Your task to perform on an android device: check battery use Image 0: 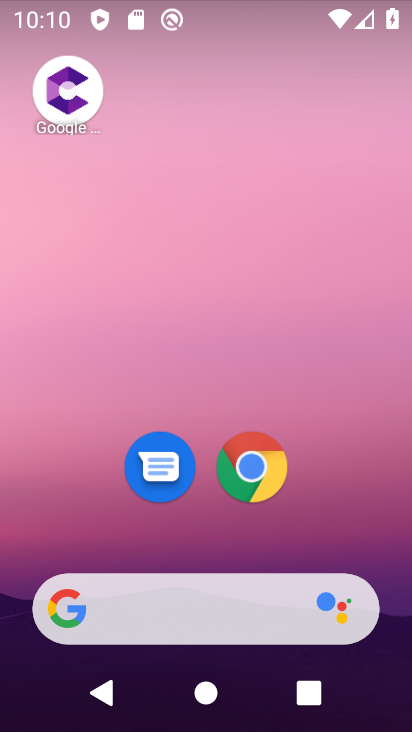
Step 0: drag from (174, 524) to (250, 152)
Your task to perform on an android device: check battery use Image 1: 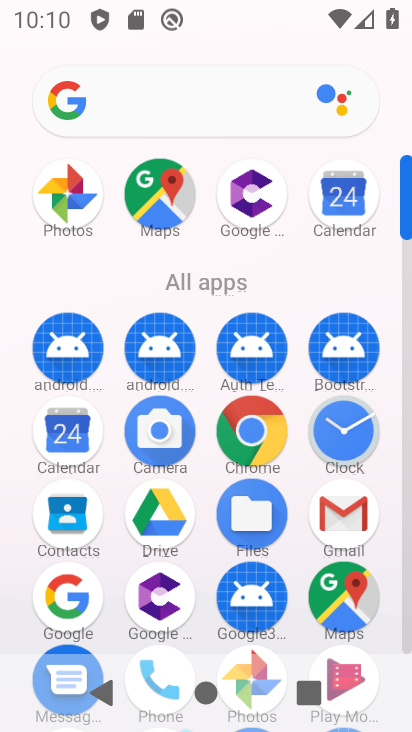
Step 1: drag from (204, 641) to (202, 317)
Your task to perform on an android device: check battery use Image 2: 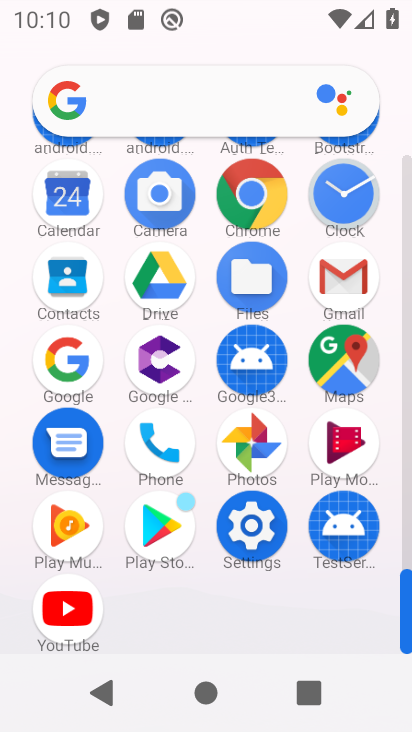
Step 2: click (253, 538)
Your task to perform on an android device: check battery use Image 3: 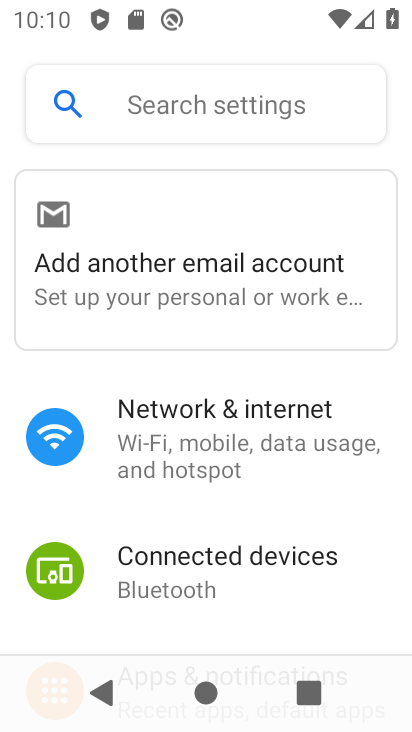
Step 3: click (165, 110)
Your task to perform on an android device: check battery use Image 4: 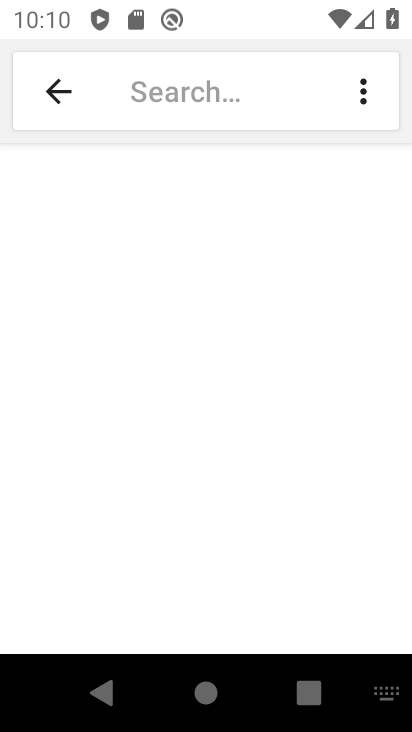
Step 4: click (47, 91)
Your task to perform on an android device: check battery use Image 5: 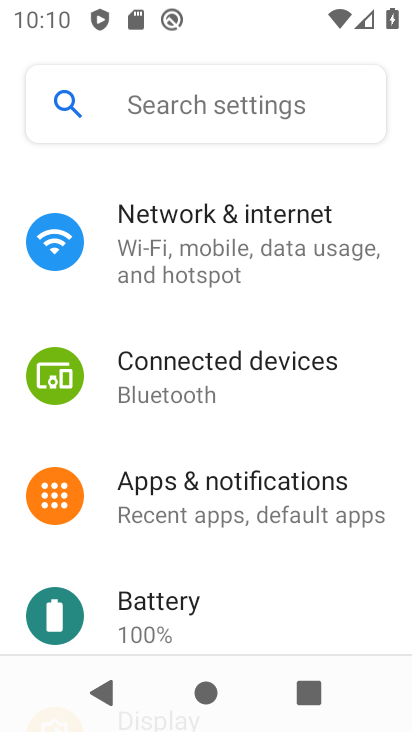
Step 5: drag from (230, 476) to (309, 35)
Your task to perform on an android device: check battery use Image 6: 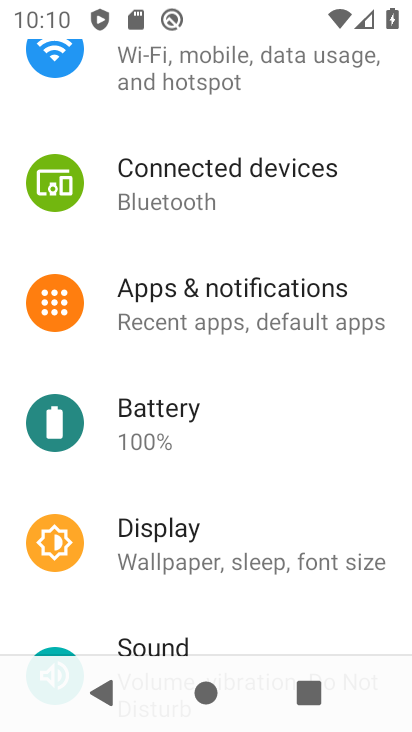
Step 6: click (190, 426)
Your task to perform on an android device: check battery use Image 7: 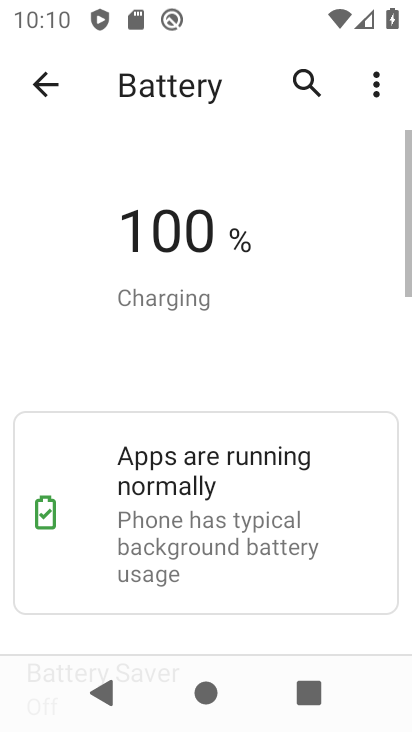
Step 7: click (292, 457)
Your task to perform on an android device: check battery use Image 8: 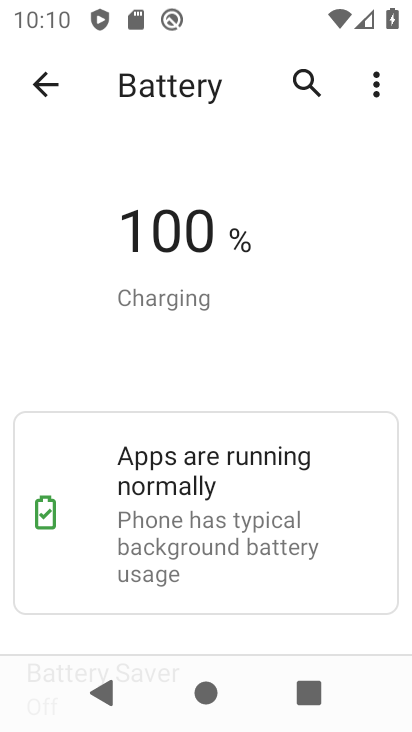
Step 8: click (373, 77)
Your task to perform on an android device: check battery use Image 9: 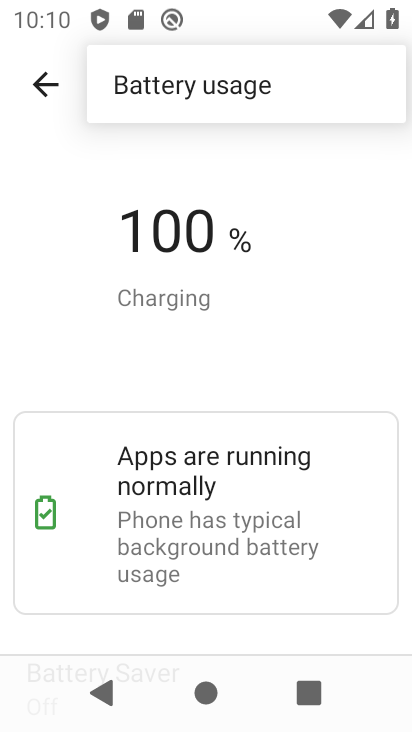
Step 9: click (243, 105)
Your task to perform on an android device: check battery use Image 10: 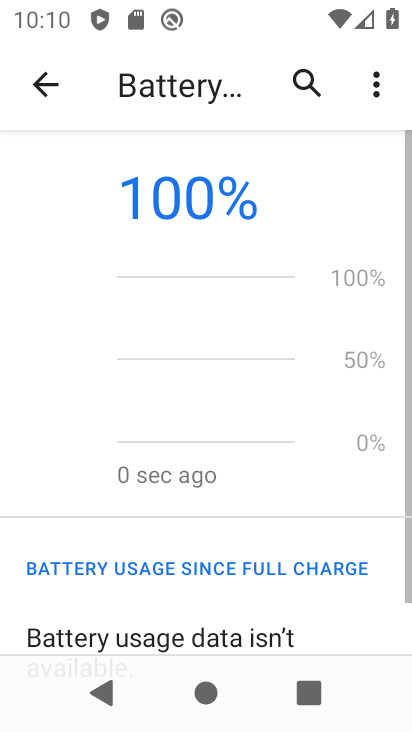
Step 10: task complete